Your task to perform on an android device: open app "Instagram" (install if not already installed) and go to login screen Image 0: 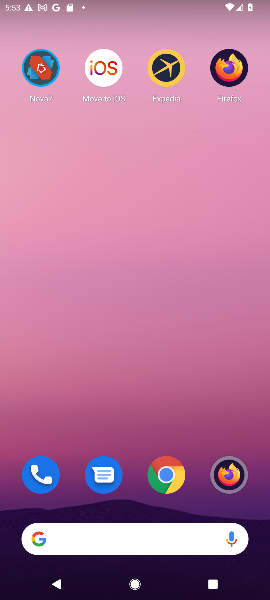
Step 0: drag from (118, 524) to (116, 238)
Your task to perform on an android device: open app "Instagram" (install if not already installed) and go to login screen Image 1: 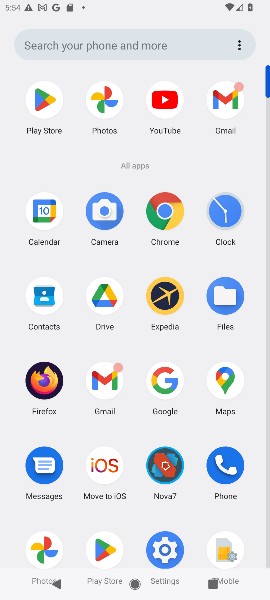
Step 1: click (37, 104)
Your task to perform on an android device: open app "Instagram" (install if not already installed) and go to login screen Image 2: 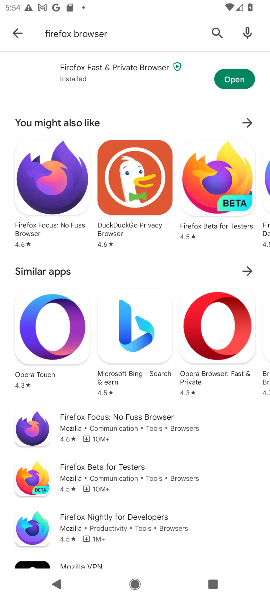
Step 2: click (213, 32)
Your task to perform on an android device: open app "Instagram" (install if not already installed) and go to login screen Image 3: 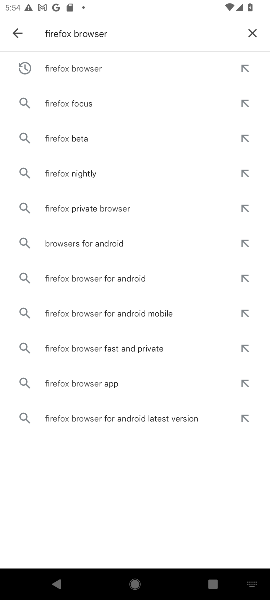
Step 3: click (248, 34)
Your task to perform on an android device: open app "Instagram" (install if not already installed) and go to login screen Image 4: 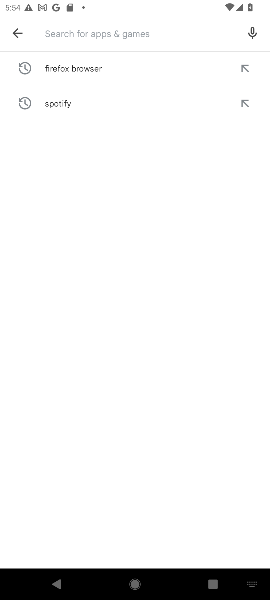
Step 4: type "Instagram"
Your task to perform on an android device: open app "Instagram" (install if not already installed) and go to login screen Image 5: 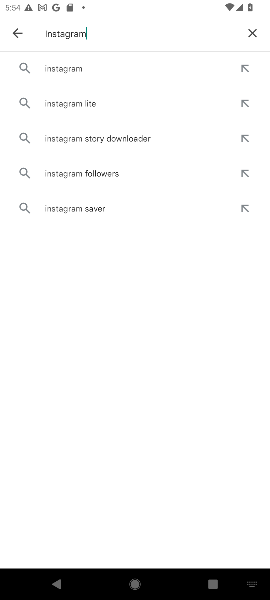
Step 5: click (76, 66)
Your task to perform on an android device: open app "Instagram" (install if not already installed) and go to login screen Image 6: 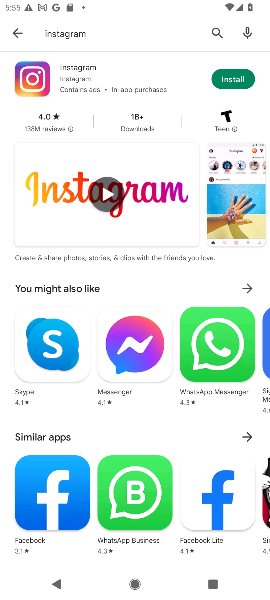
Step 6: click (240, 74)
Your task to perform on an android device: open app "Instagram" (install if not already installed) and go to login screen Image 7: 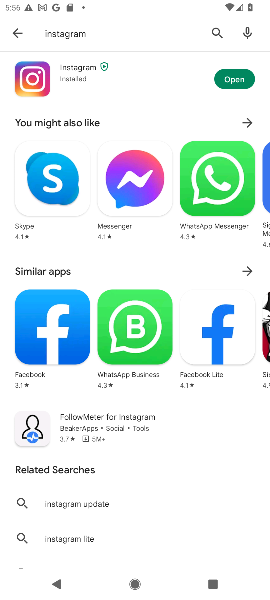
Step 7: click (243, 71)
Your task to perform on an android device: open app "Instagram" (install if not already installed) and go to login screen Image 8: 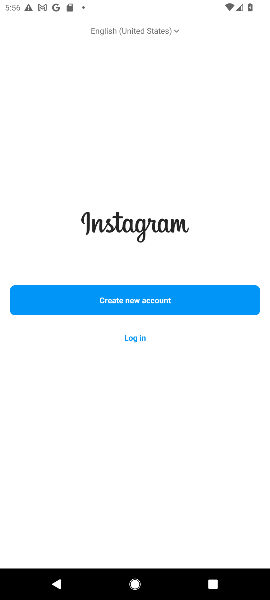
Step 8: task complete